Your task to perform on an android device: check storage Image 0: 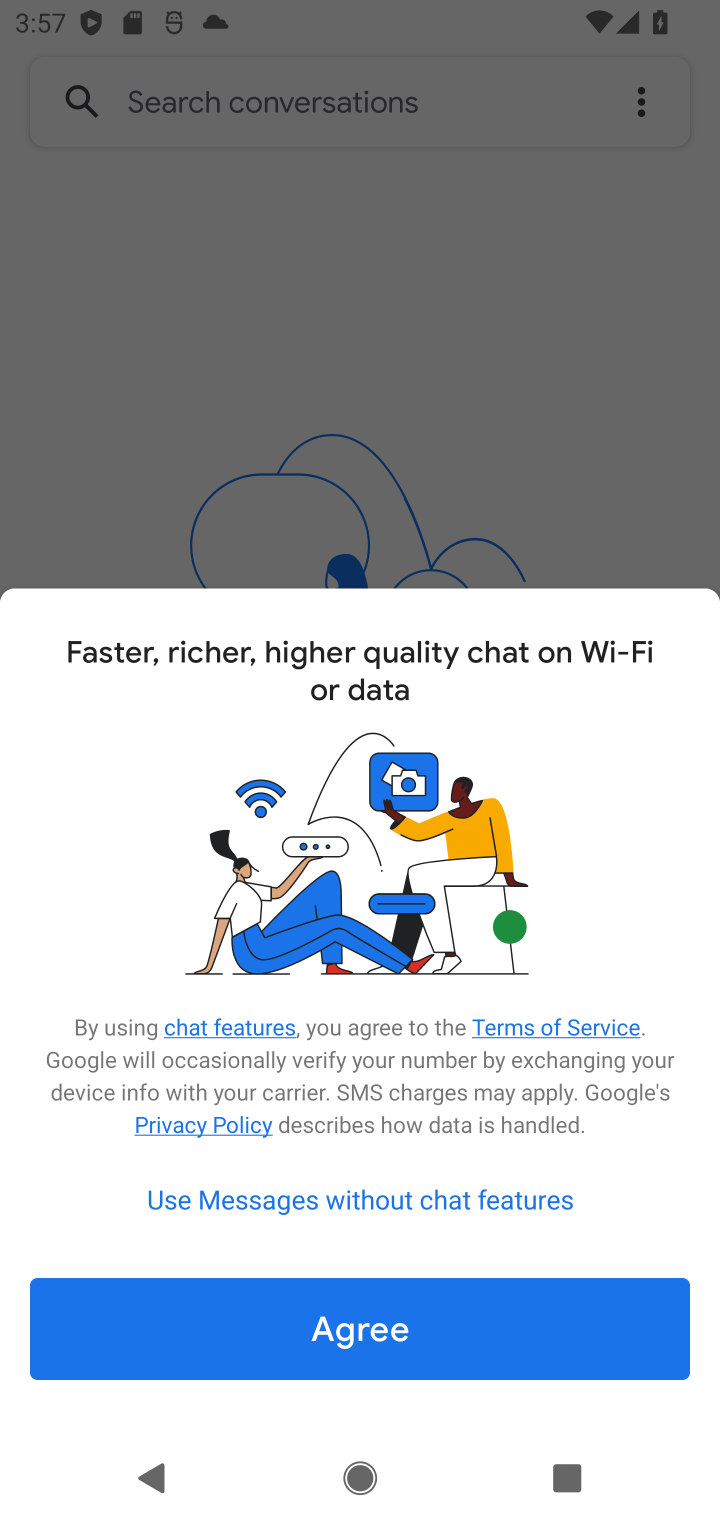
Step 0: press home button
Your task to perform on an android device: check storage Image 1: 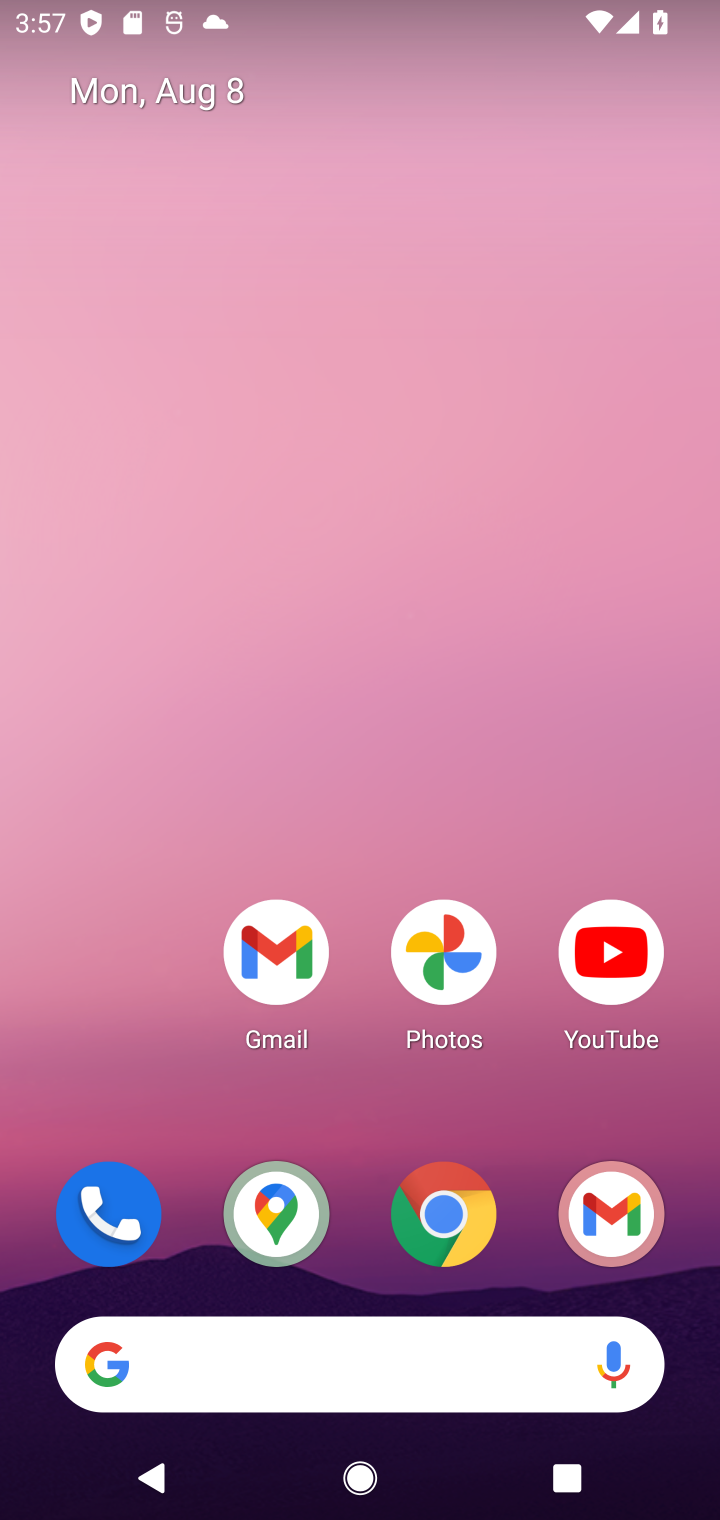
Step 1: drag from (354, 1310) to (374, 162)
Your task to perform on an android device: check storage Image 2: 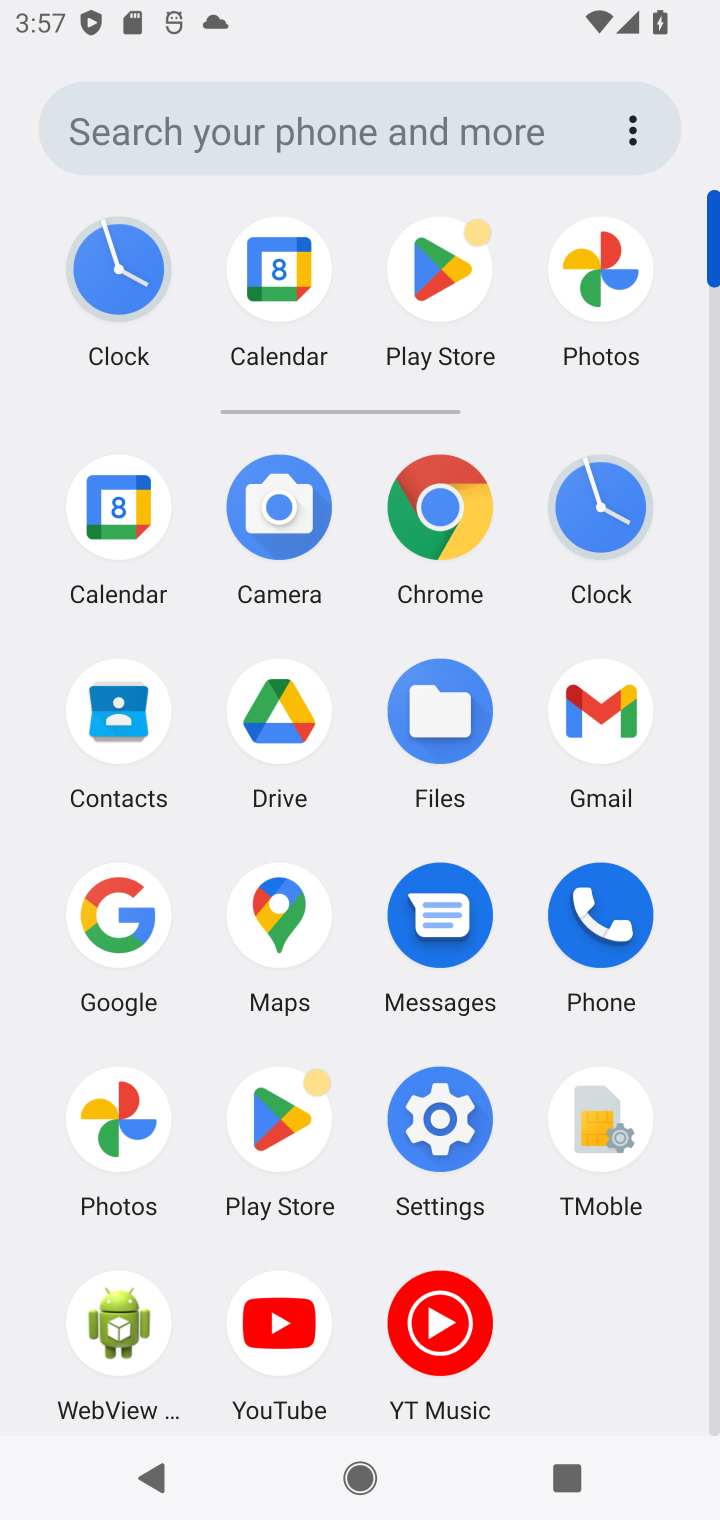
Step 2: click (427, 1116)
Your task to perform on an android device: check storage Image 3: 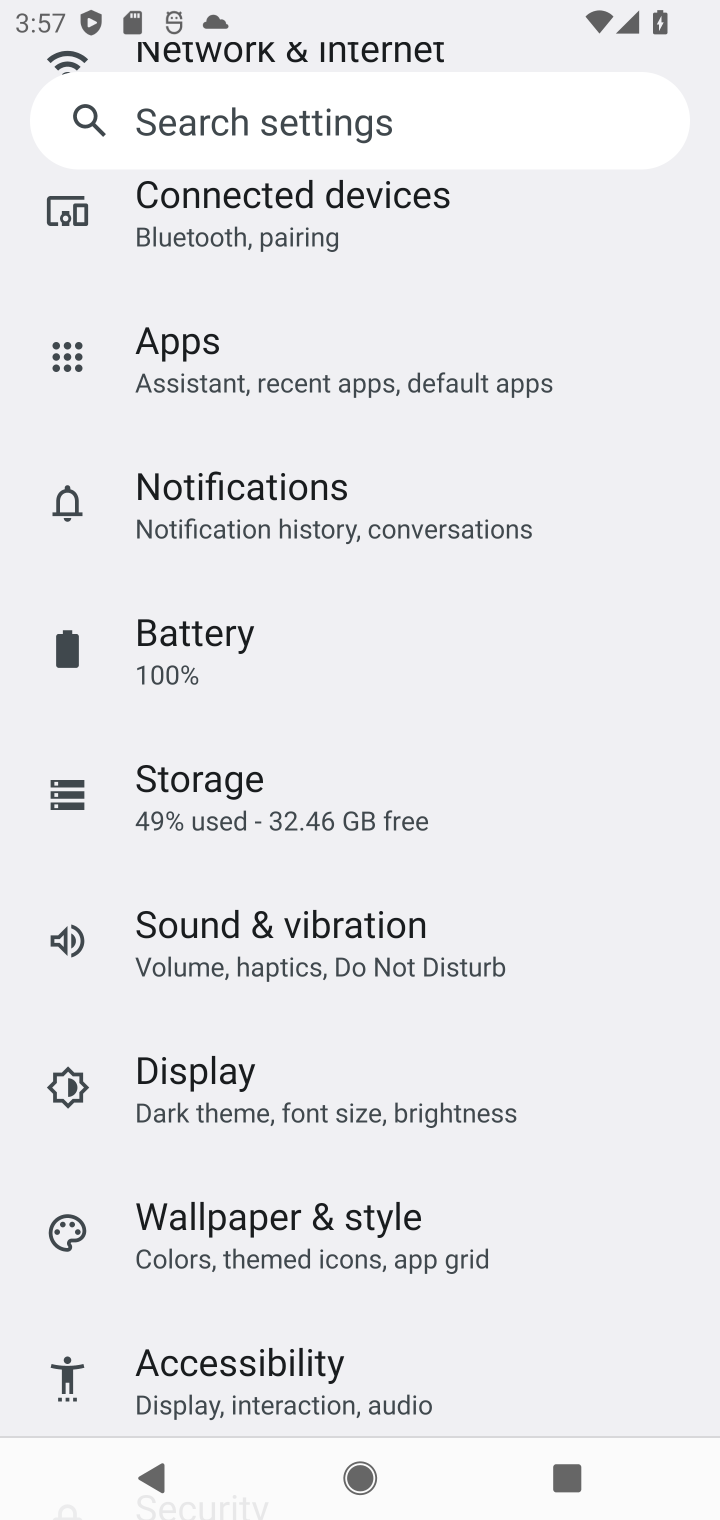
Step 3: drag from (257, 267) to (317, 1176)
Your task to perform on an android device: check storage Image 4: 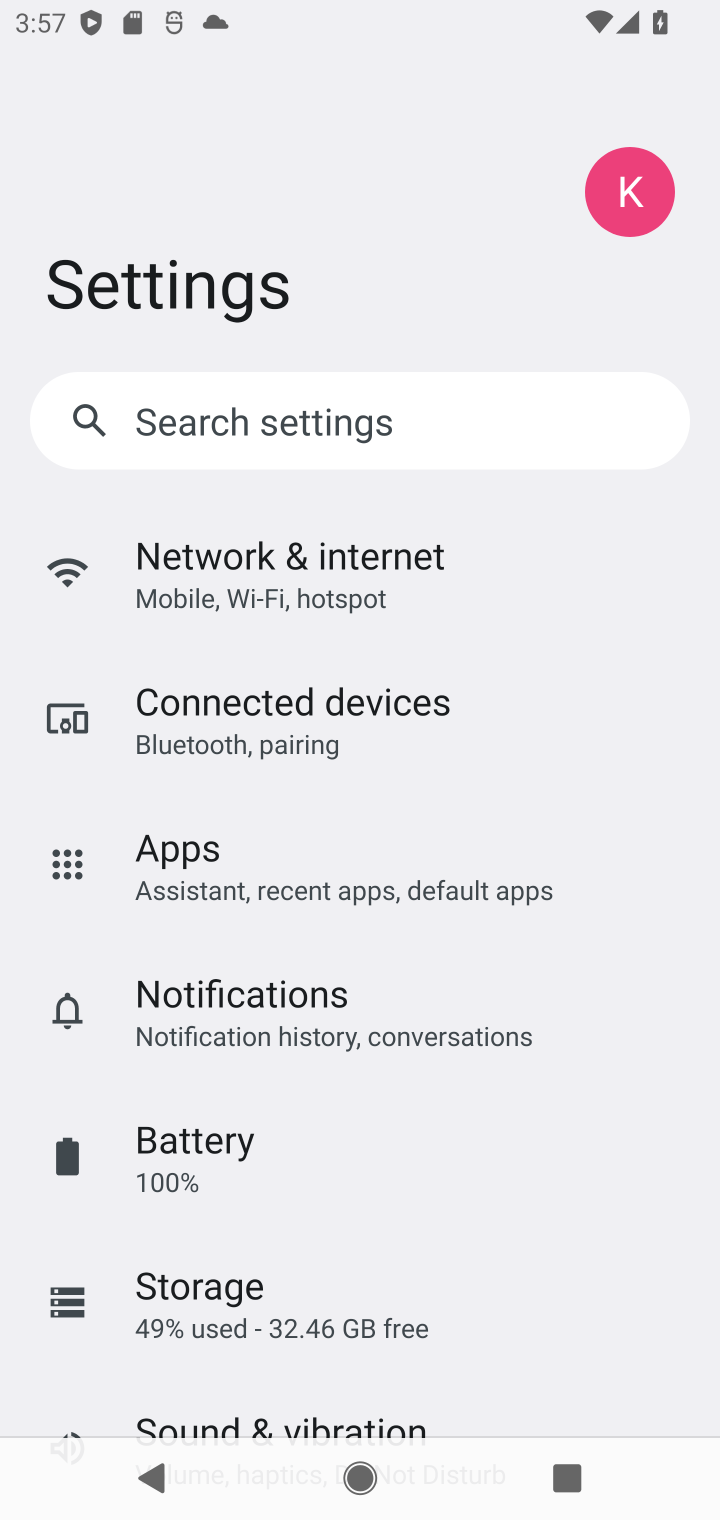
Step 4: click (189, 1283)
Your task to perform on an android device: check storage Image 5: 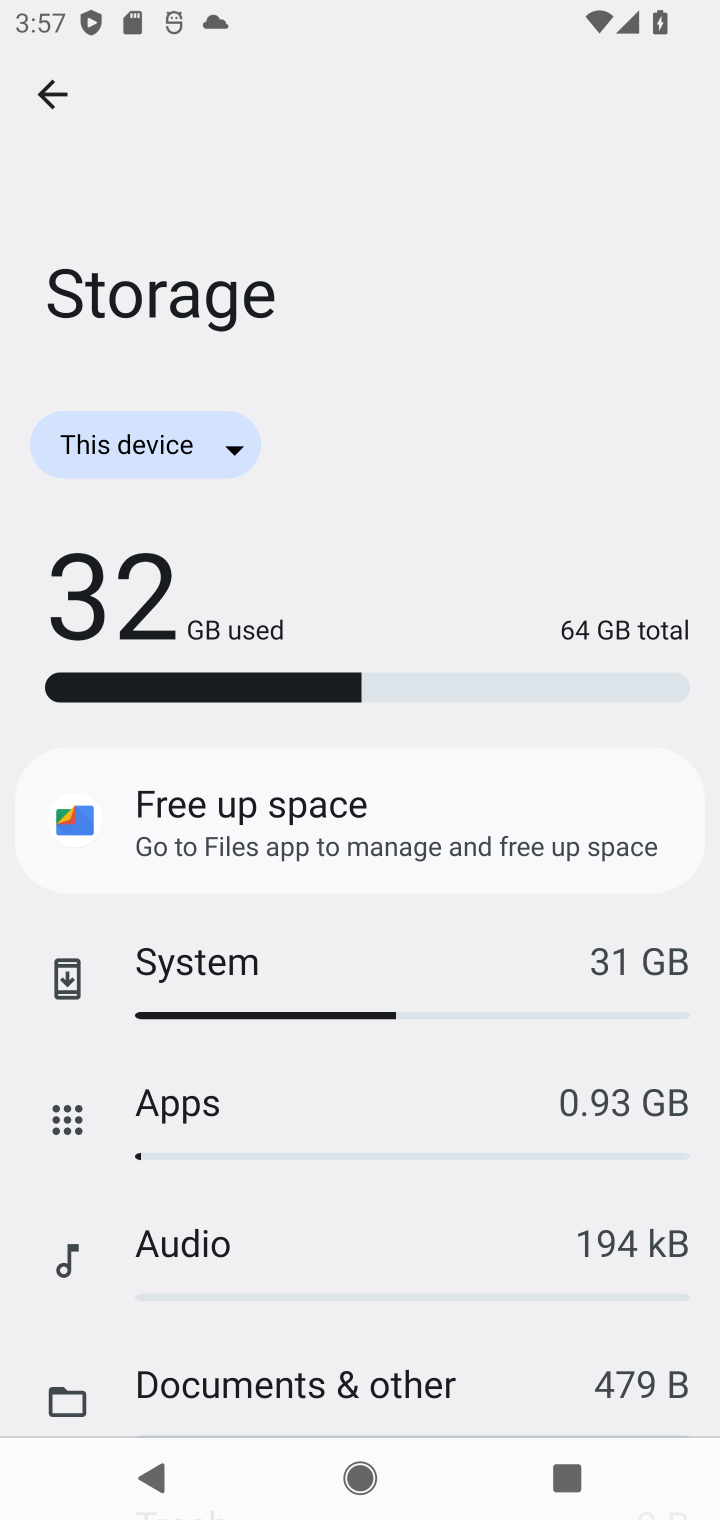
Step 5: task complete